Your task to perform on an android device: turn vacation reply on in the gmail app Image 0: 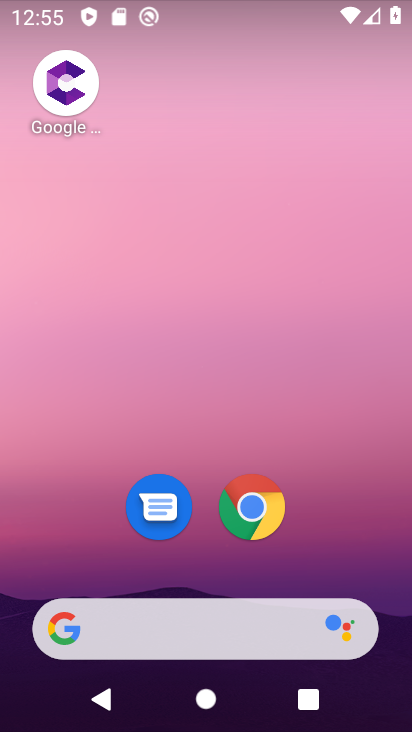
Step 0: drag from (405, 617) to (333, 330)
Your task to perform on an android device: turn vacation reply on in the gmail app Image 1: 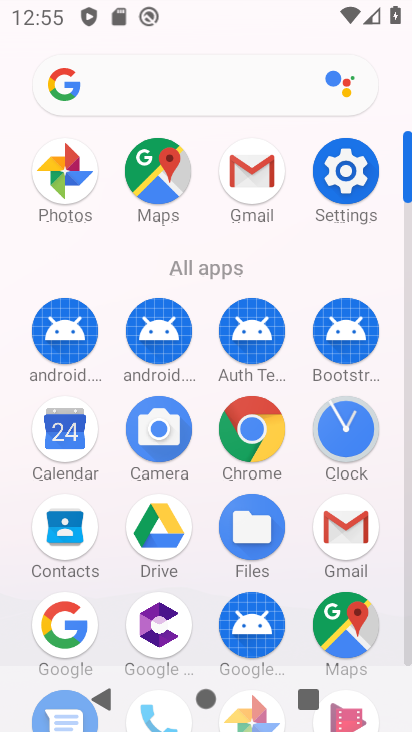
Step 1: click (251, 187)
Your task to perform on an android device: turn vacation reply on in the gmail app Image 2: 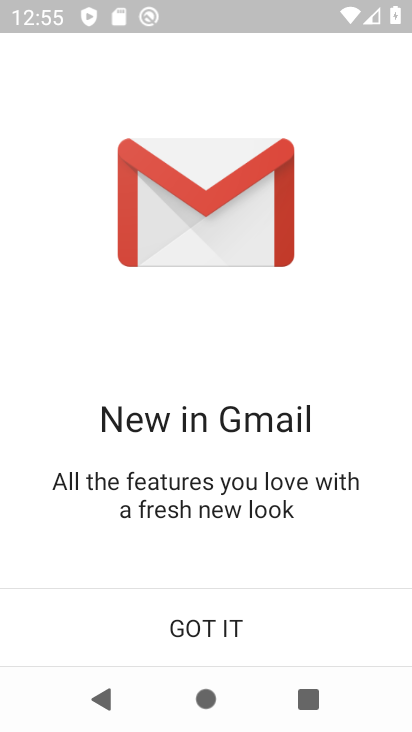
Step 2: click (223, 621)
Your task to perform on an android device: turn vacation reply on in the gmail app Image 3: 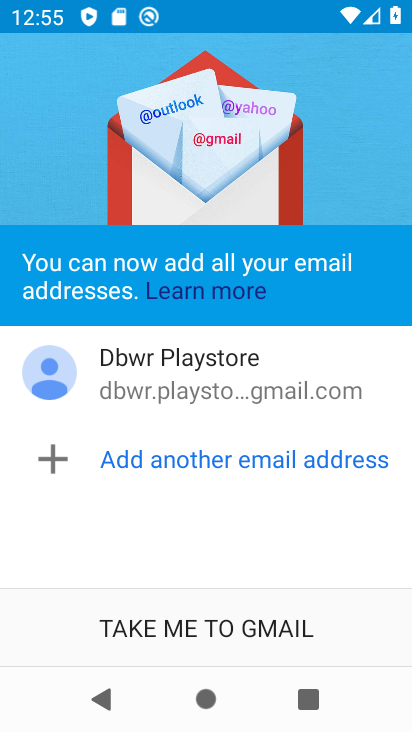
Step 3: click (214, 630)
Your task to perform on an android device: turn vacation reply on in the gmail app Image 4: 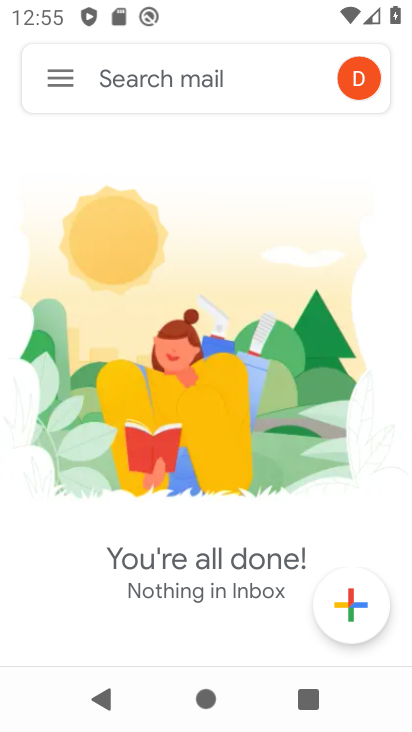
Step 4: click (46, 81)
Your task to perform on an android device: turn vacation reply on in the gmail app Image 5: 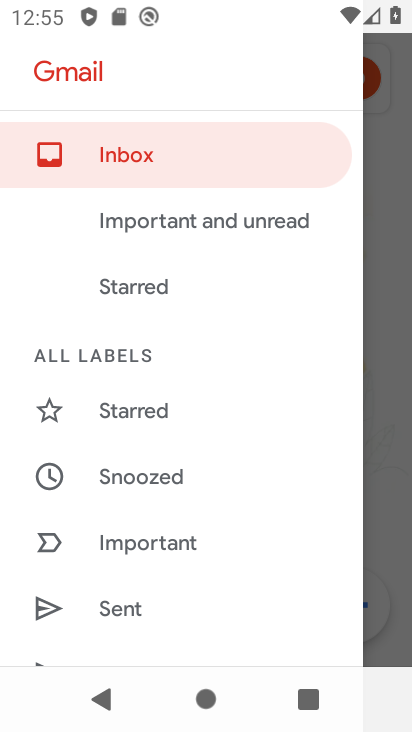
Step 5: drag from (126, 643) to (196, 155)
Your task to perform on an android device: turn vacation reply on in the gmail app Image 6: 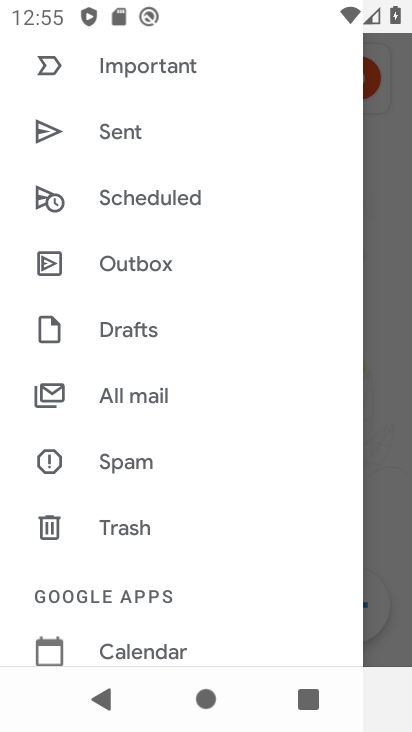
Step 6: drag from (127, 553) to (155, 124)
Your task to perform on an android device: turn vacation reply on in the gmail app Image 7: 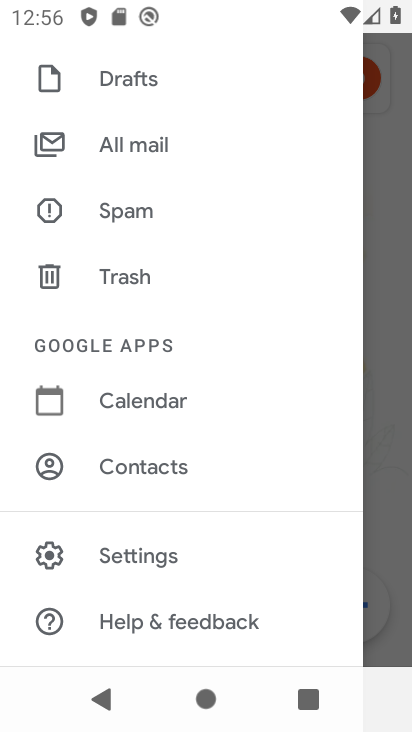
Step 7: click (169, 546)
Your task to perform on an android device: turn vacation reply on in the gmail app Image 8: 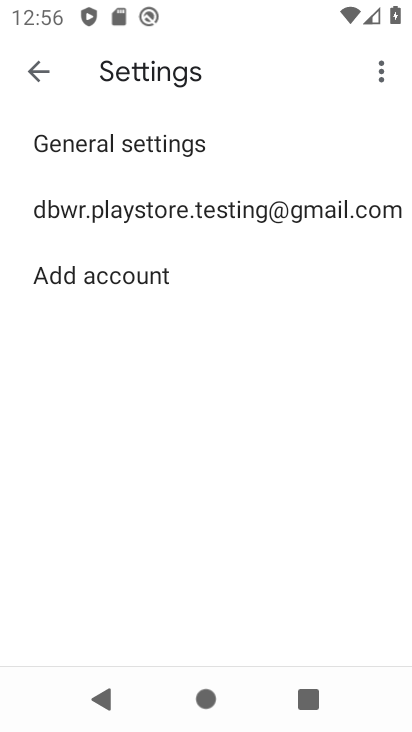
Step 8: click (249, 226)
Your task to perform on an android device: turn vacation reply on in the gmail app Image 9: 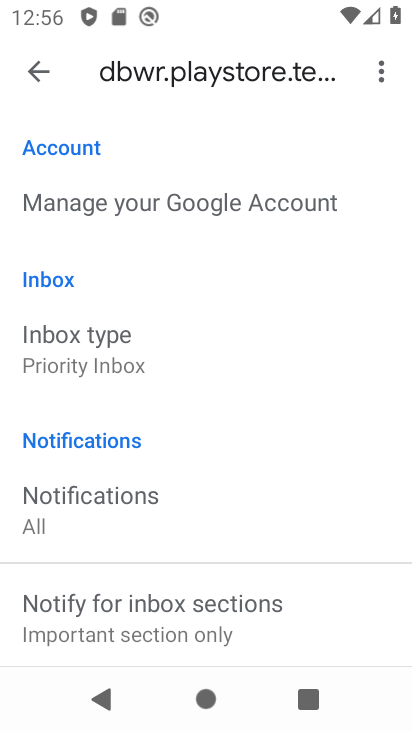
Step 9: drag from (152, 602) to (170, 125)
Your task to perform on an android device: turn vacation reply on in the gmail app Image 10: 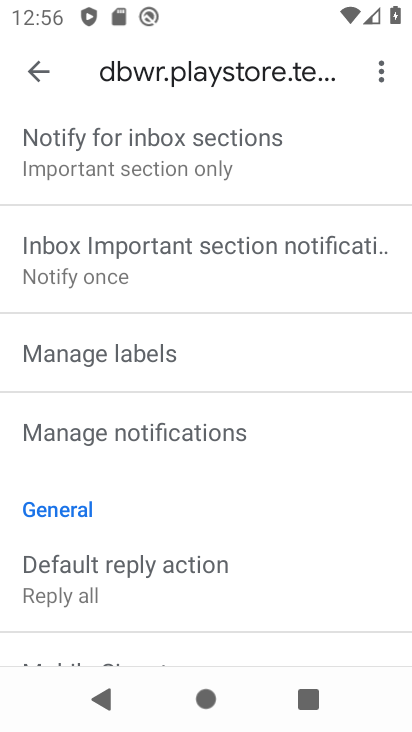
Step 10: drag from (116, 578) to (114, 227)
Your task to perform on an android device: turn vacation reply on in the gmail app Image 11: 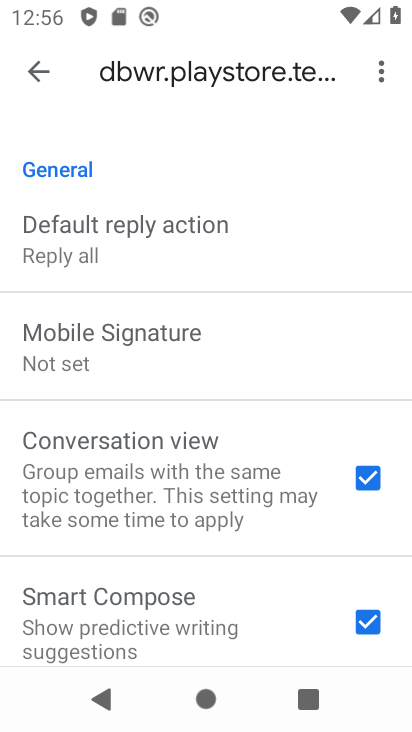
Step 11: drag from (120, 518) to (116, 159)
Your task to perform on an android device: turn vacation reply on in the gmail app Image 12: 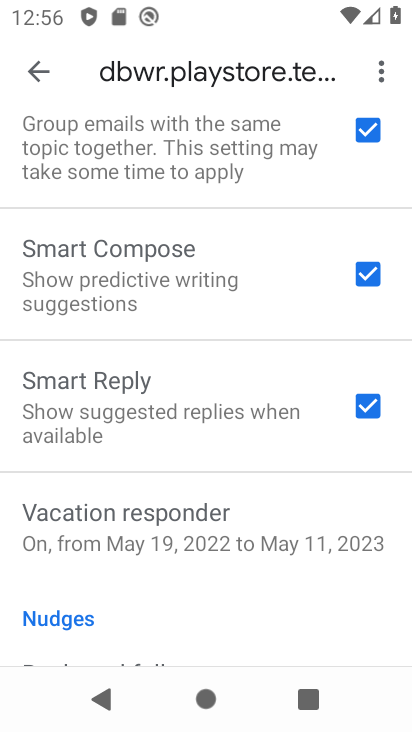
Step 12: click (154, 526)
Your task to perform on an android device: turn vacation reply on in the gmail app Image 13: 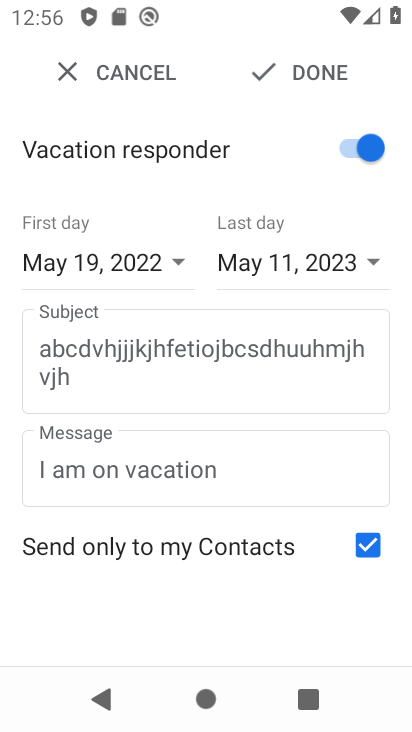
Step 13: click (290, 397)
Your task to perform on an android device: turn vacation reply on in the gmail app Image 14: 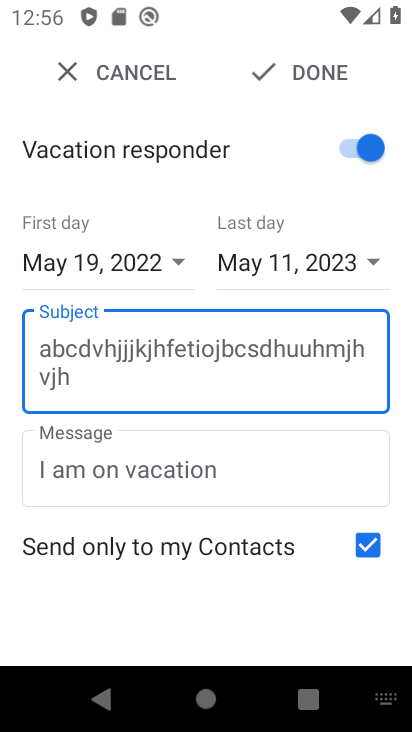
Step 14: type "jm"
Your task to perform on an android device: turn vacation reply on in the gmail app Image 15: 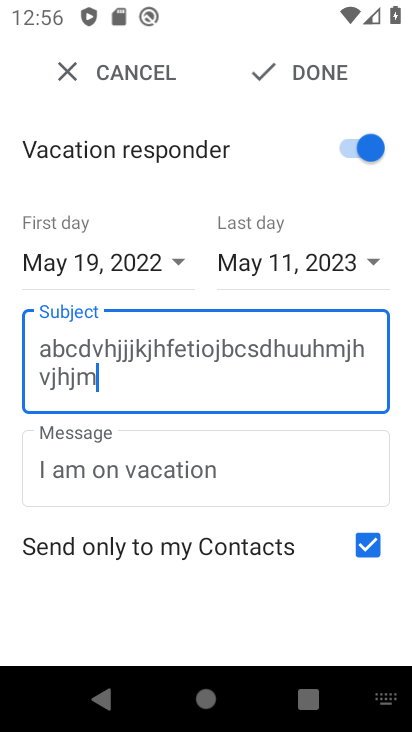
Step 15: click (327, 69)
Your task to perform on an android device: turn vacation reply on in the gmail app Image 16: 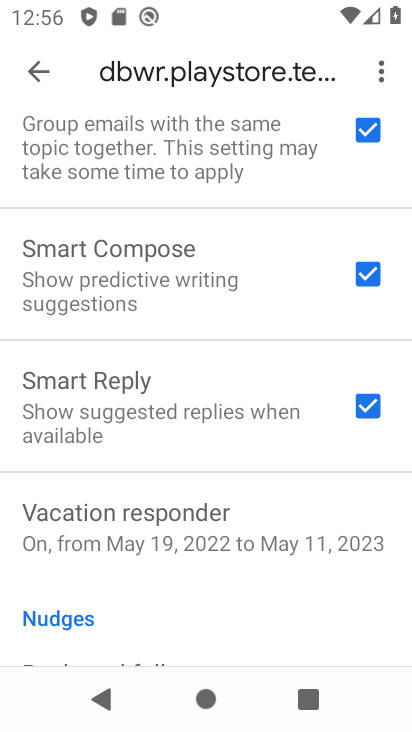
Step 16: task complete